Your task to perform on an android device: Open Amazon Image 0: 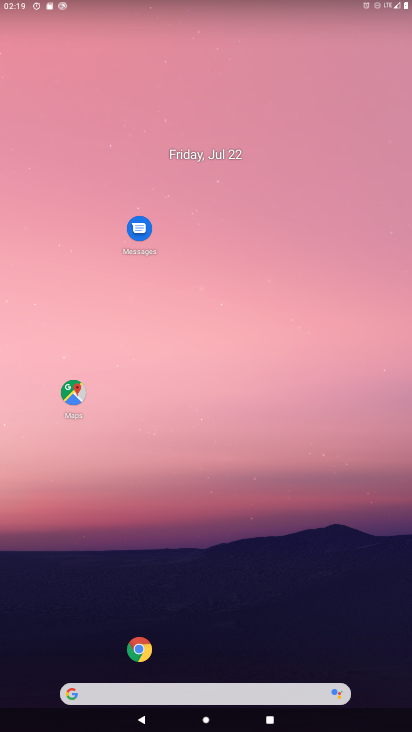
Step 0: click (258, 127)
Your task to perform on an android device: Open Amazon Image 1: 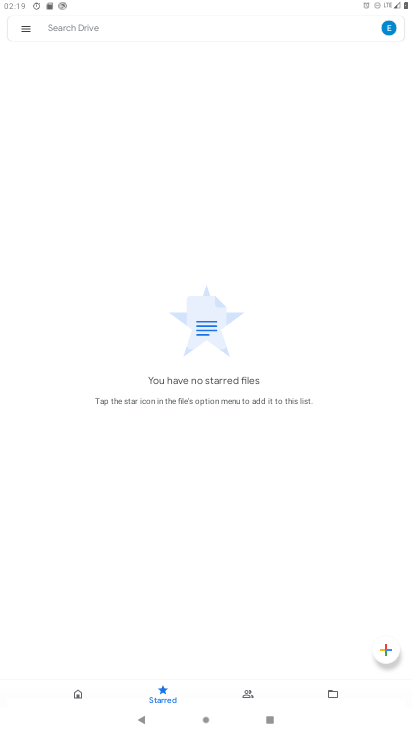
Step 1: press home button
Your task to perform on an android device: Open Amazon Image 2: 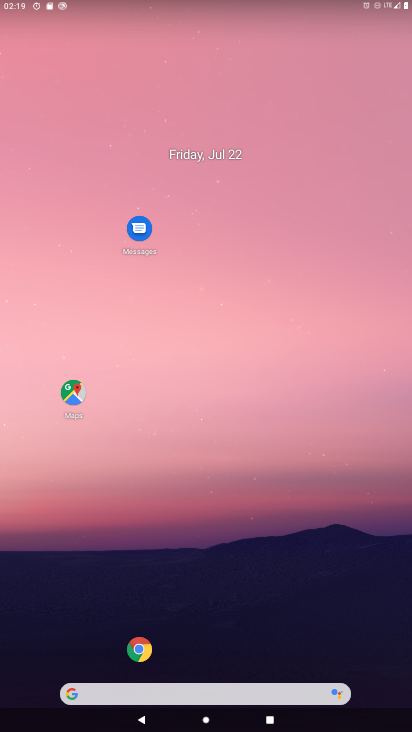
Step 2: click (102, 695)
Your task to perform on an android device: Open Amazon Image 3: 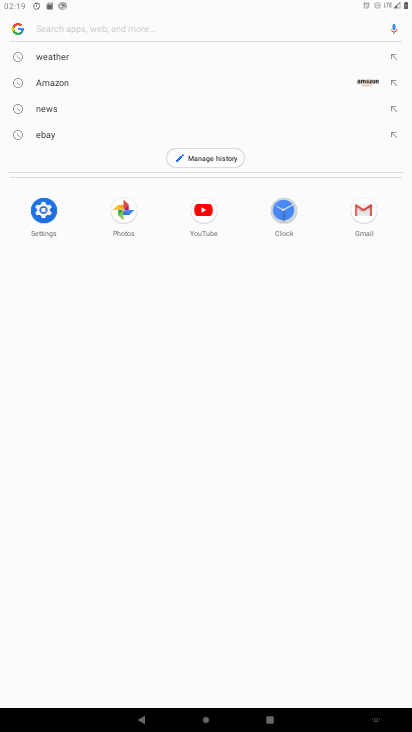
Step 3: click (45, 79)
Your task to perform on an android device: Open Amazon Image 4: 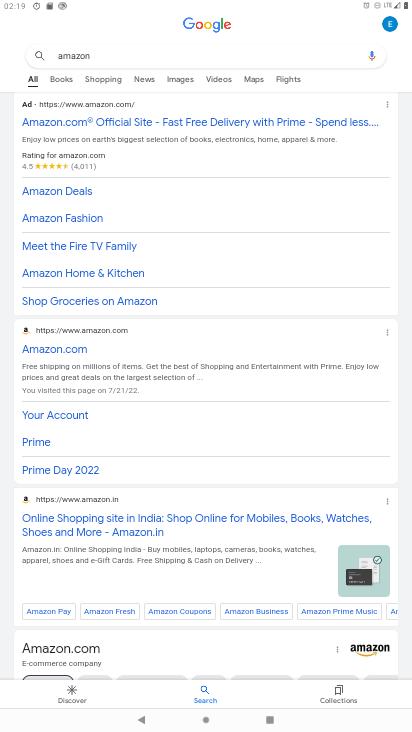
Step 4: task complete